Your task to perform on an android device: Open the calendar and show me this week's events? Image 0: 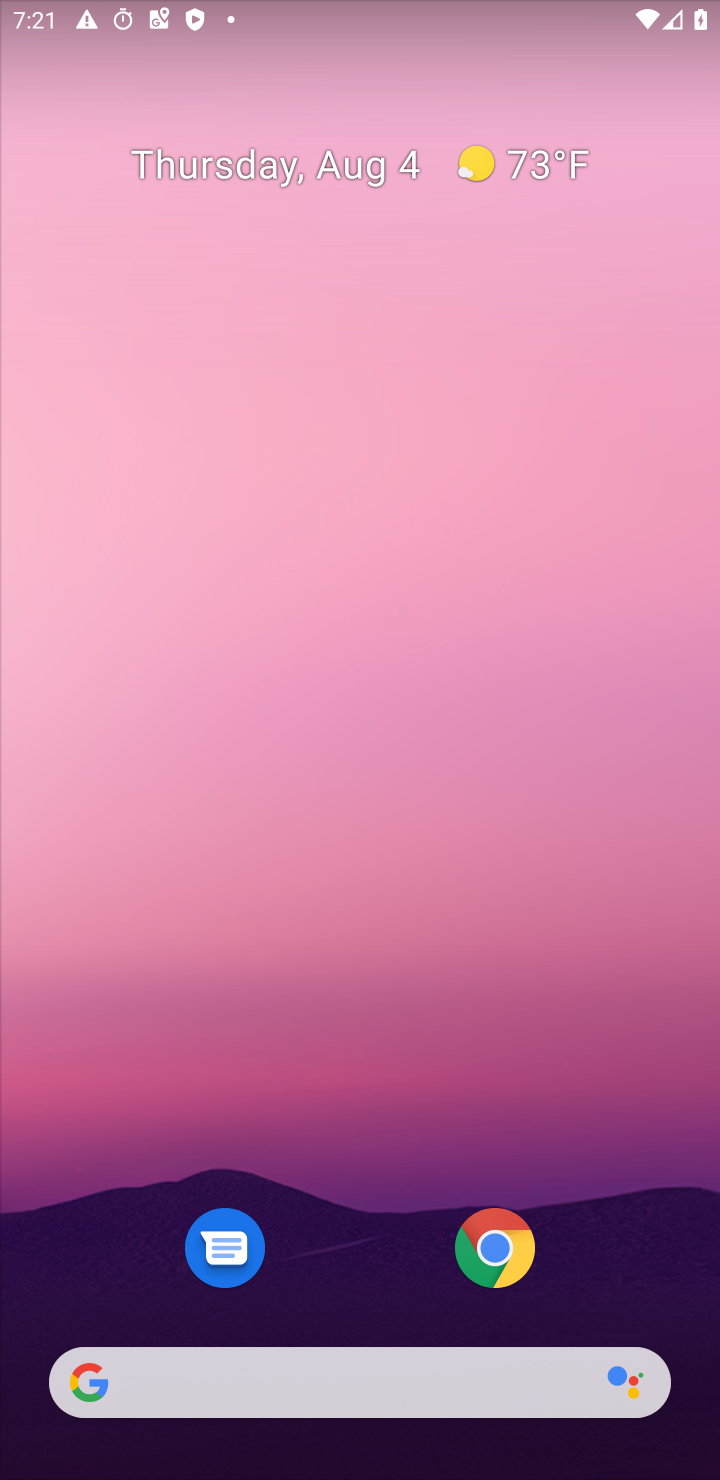
Step 0: drag from (502, 1325) to (506, 342)
Your task to perform on an android device: Open the calendar and show me this week's events? Image 1: 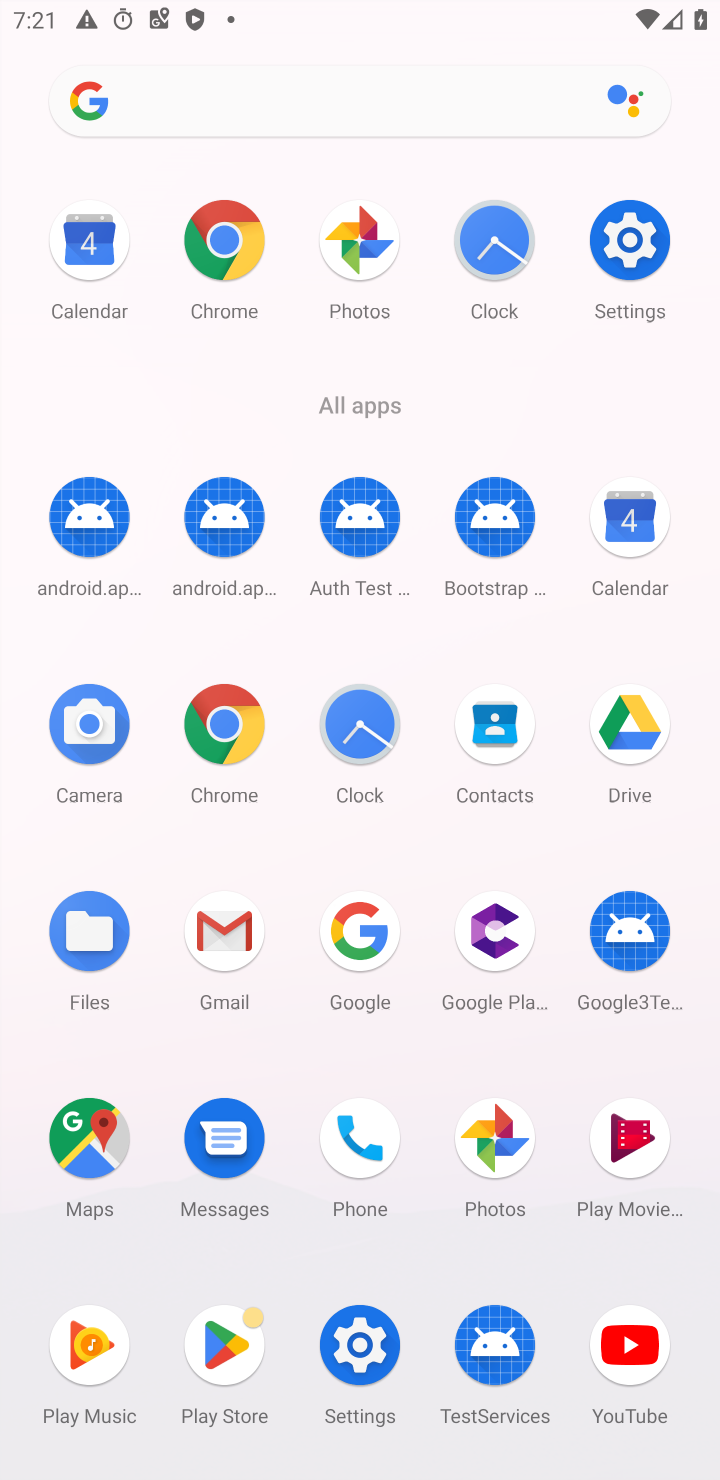
Step 1: click (625, 523)
Your task to perform on an android device: Open the calendar and show me this week's events? Image 2: 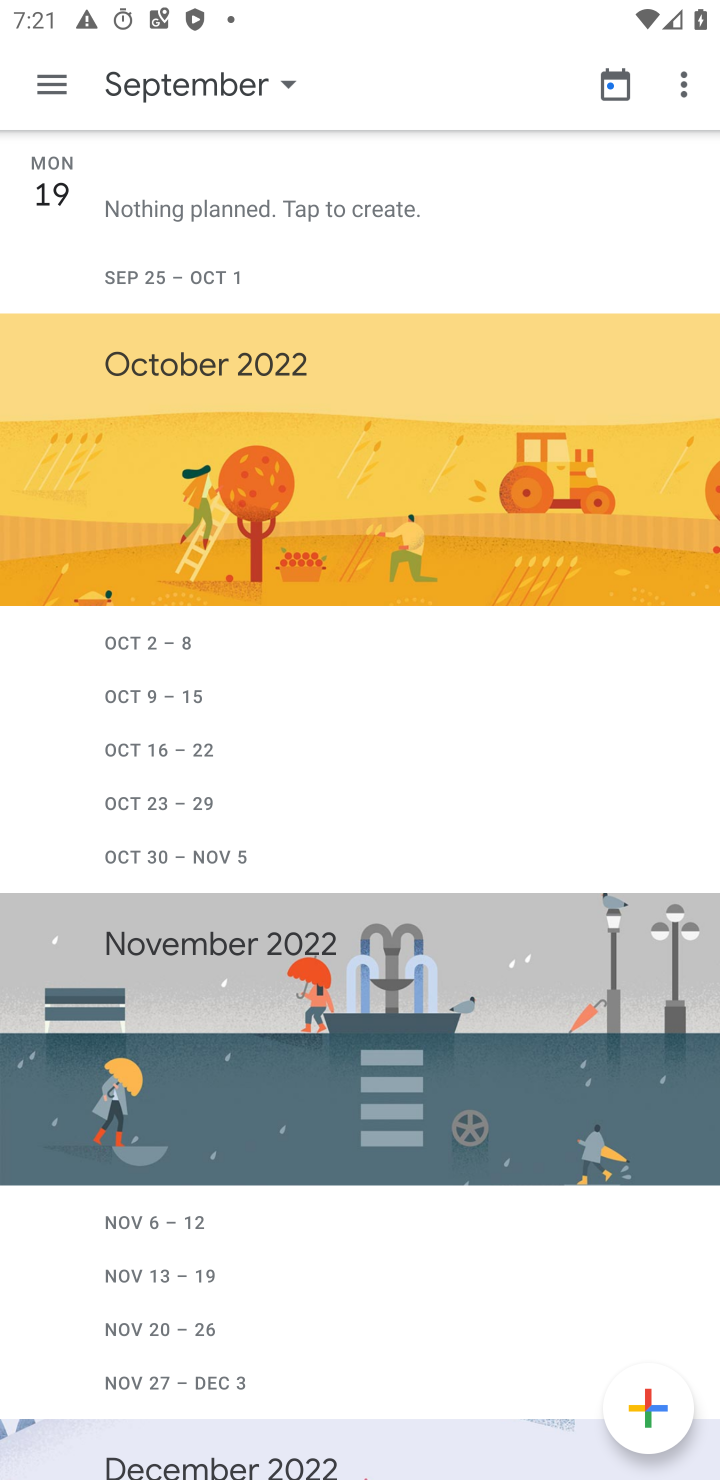
Step 2: click (66, 92)
Your task to perform on an android device: Open the calendar and show me this week's events? Image 3: 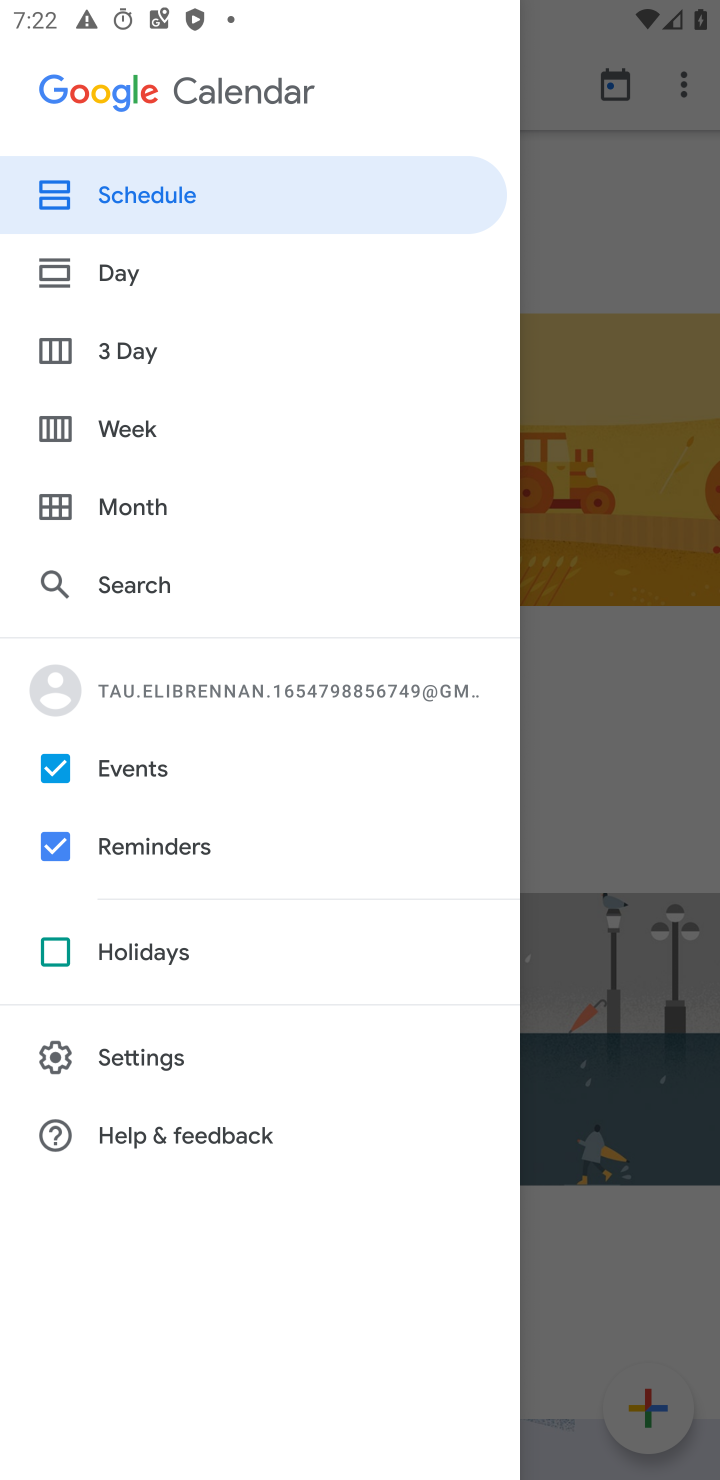
Step 3: click (167, 487)
Your task to perform on an android device: Open the calendar and show me this week's events? Image 4: 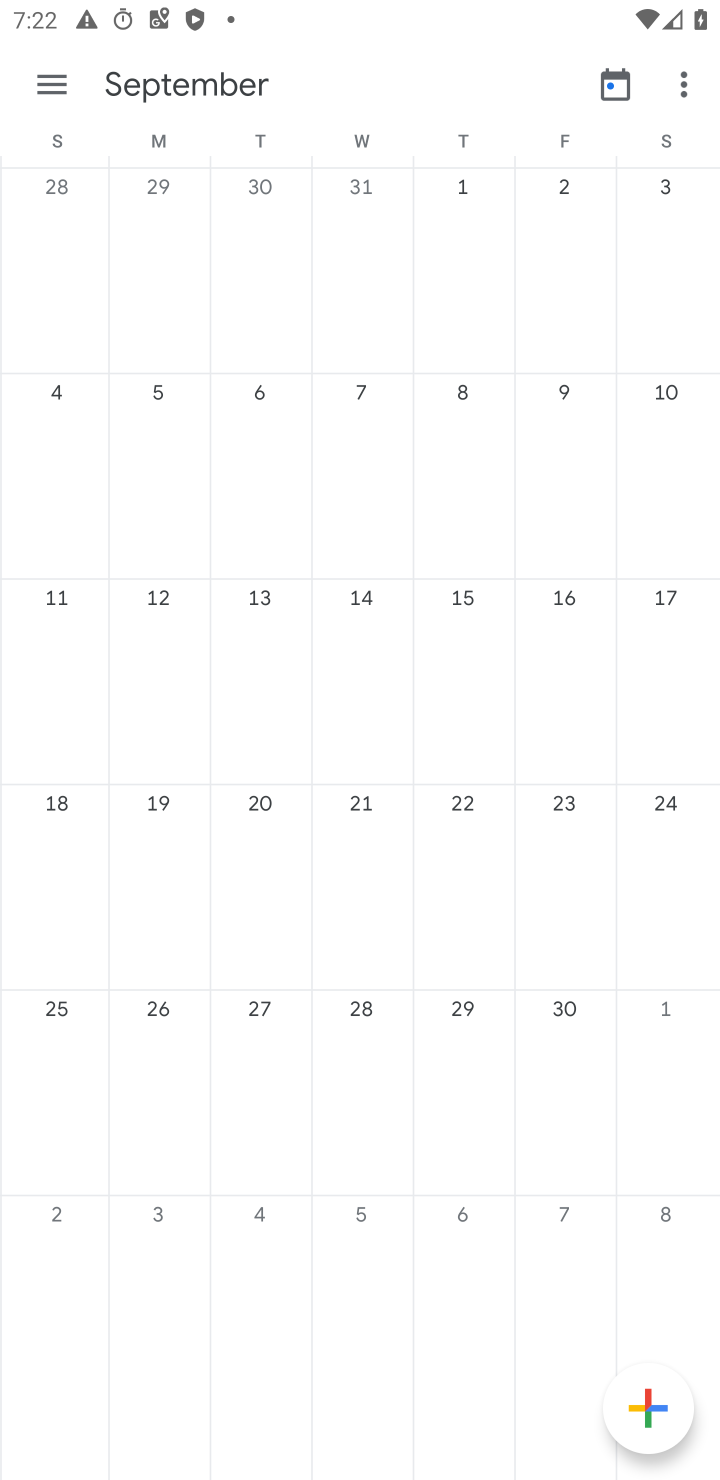
Step 4: drag from (421, 522) to (714, 436)
Your task to perform on an android device: Open the calendar and show me this week's events? Image 5: 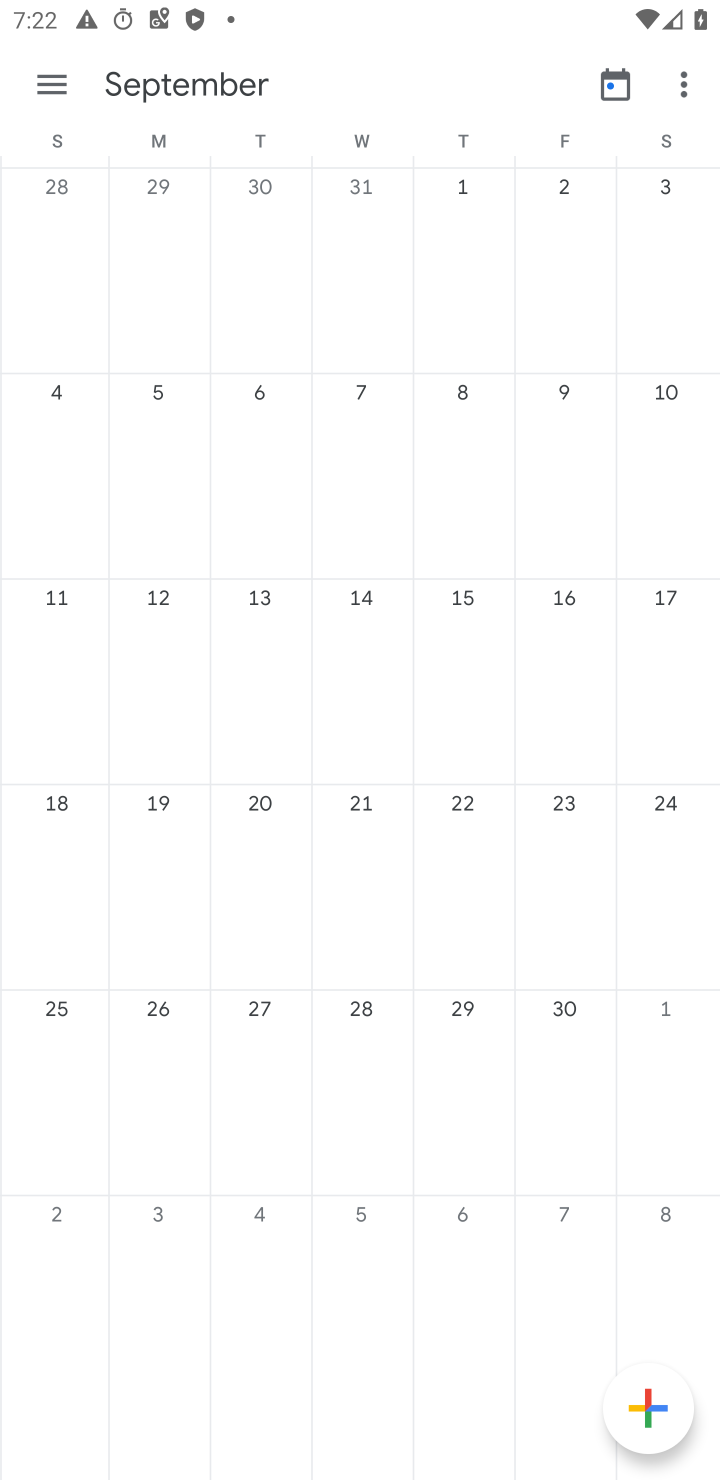
Step 5: drag from (44, 821) to (719, 630)
Your task to perform on an android device: Open the calendar and show me this week's events? Image 6: 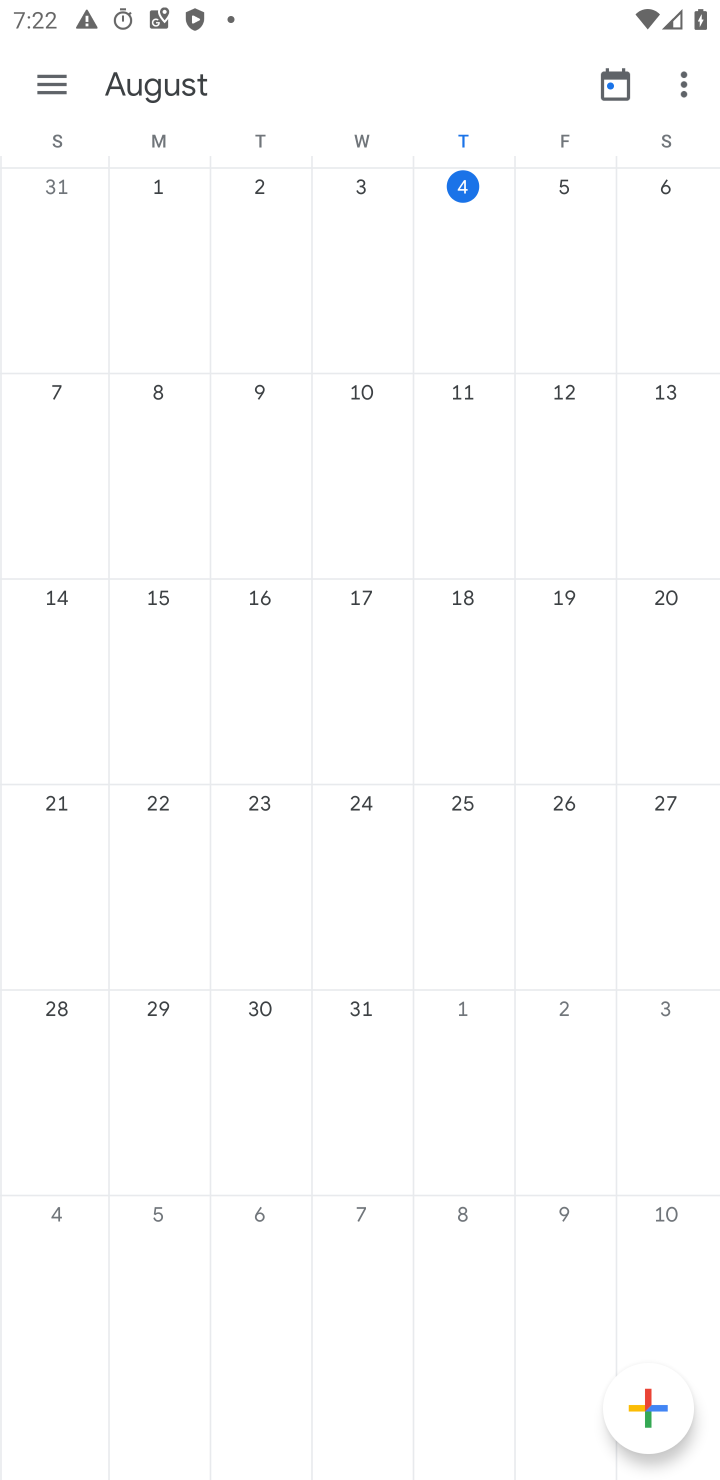
Step 6: click (37, 89)
Your task to perform on an android device: Open the calendar and show me this week's events? Image 7: 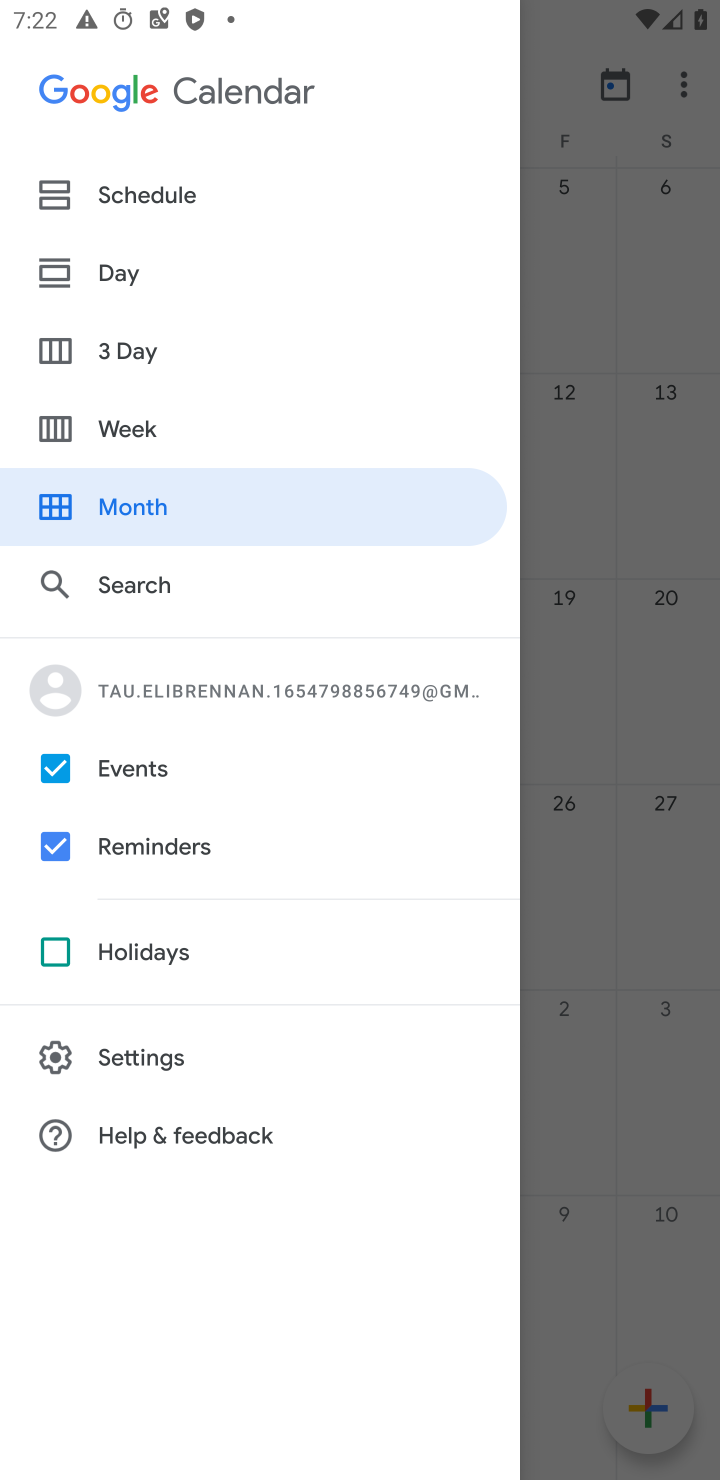
Step 7: click (179, 421)
Your task to perform on an android device: Open the calendar and show me this week's events? Image 8: 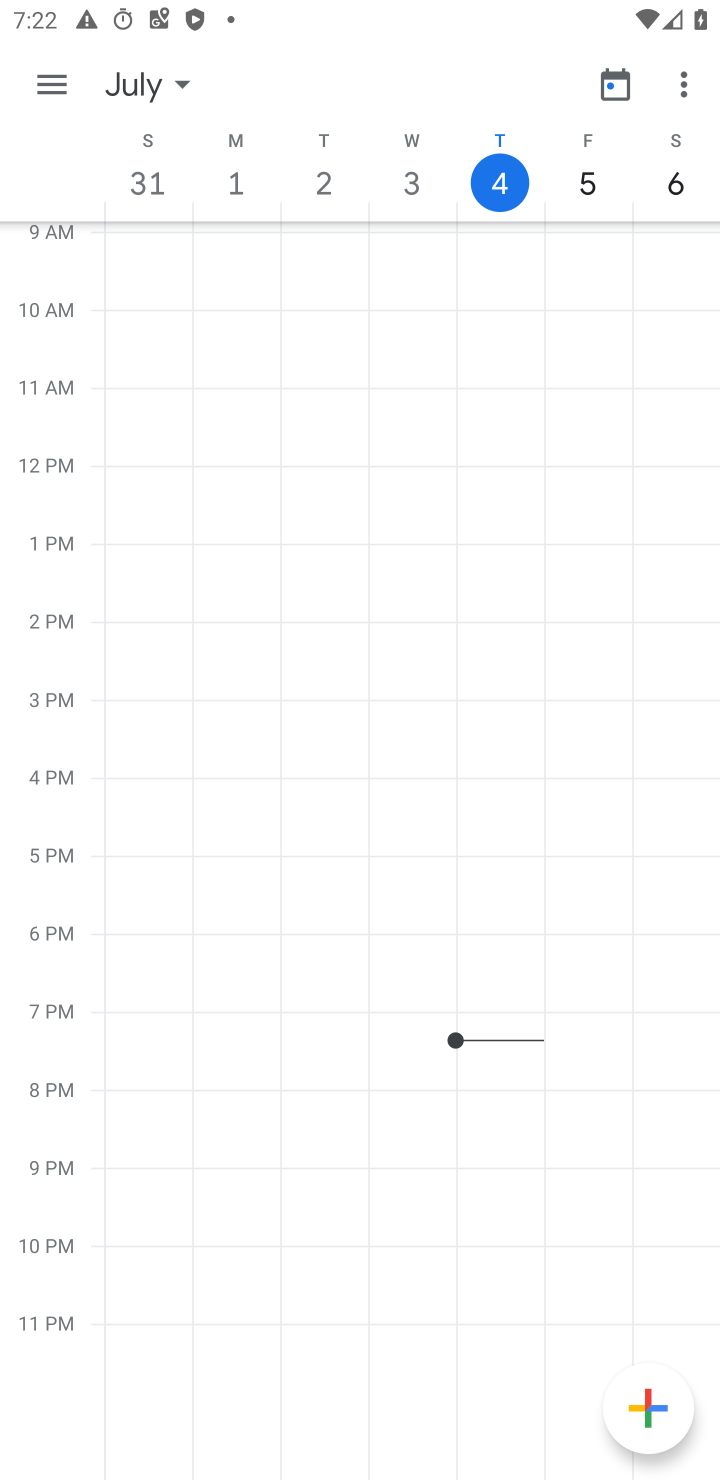
Step 8: task complete